Your task to perform on an android device: turn off airplane mode Image 0: 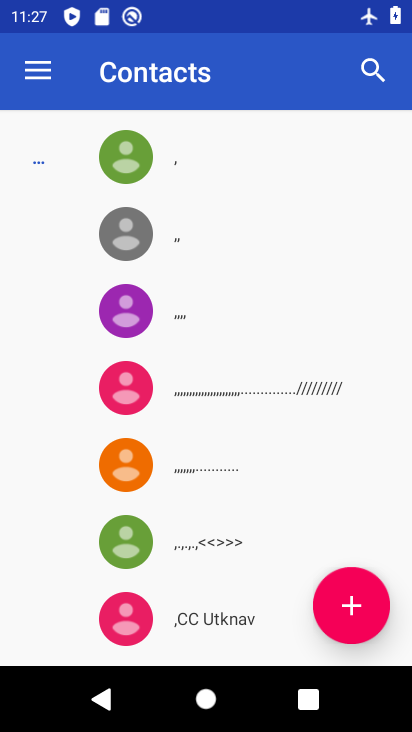
Step 0: press back button
Your task to perform on an android device: turn off airplane mode Image 1: 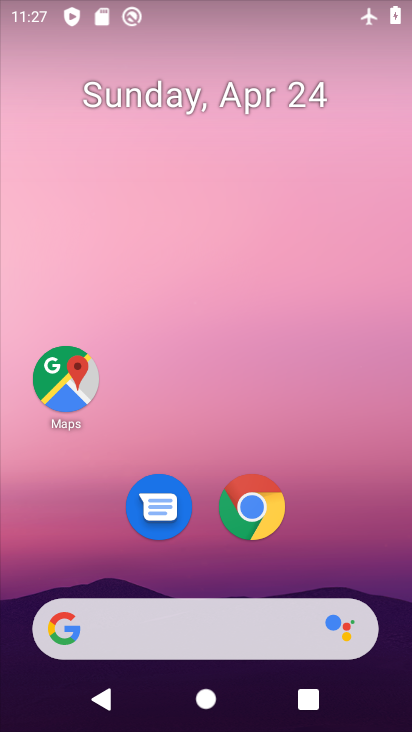
Step 1: drag from (311, 498) to (272, 1)
Your task to perform on an android device: turn off airplane mode Image 2: 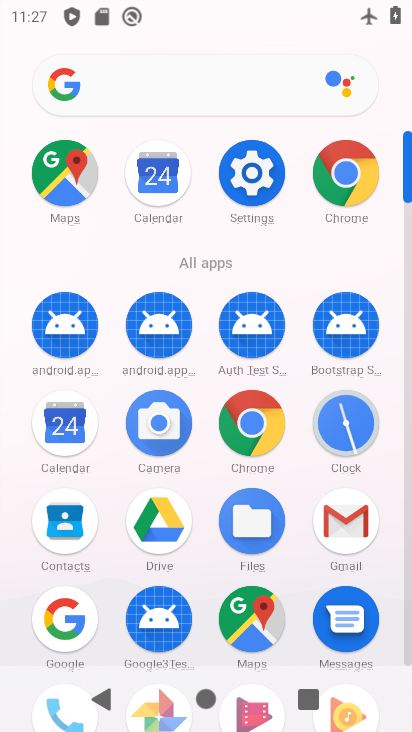
Step 2: click (256, 170)
Your task to perform on an android device: turn off airplane mode Image 3: 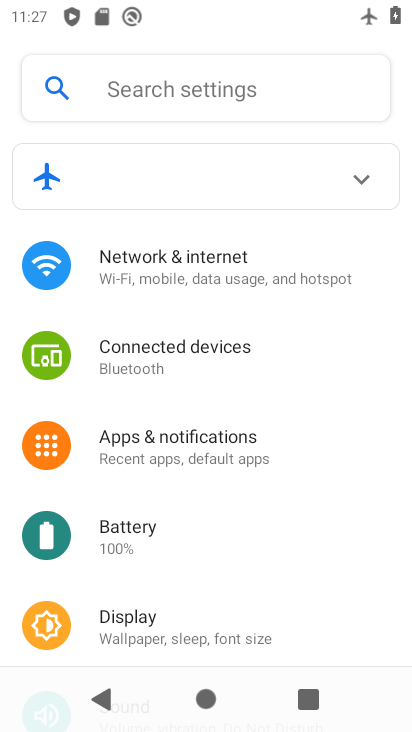
Step 3: click (256, 256)
Your task to perform on an android device: turn off airplane mode Image 4: 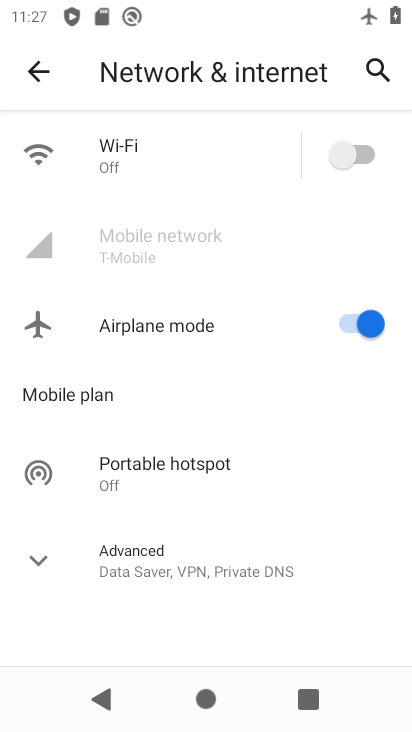
Step 4: click (334, 326)
Your task to perform on an android device: turn off airplane mode Image 5: 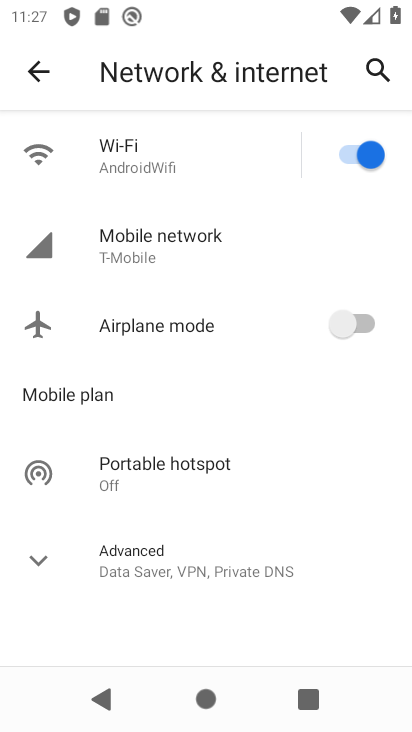
Step 5: click (21, 550)
Your task to perform on an android device: turn off airplane mode Image 6: 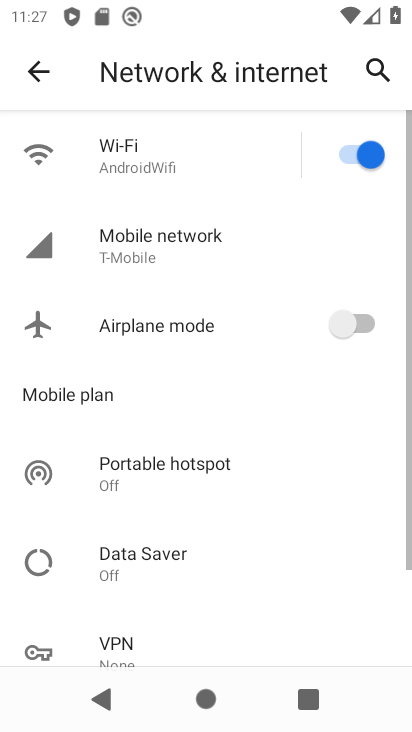
Step 6: task complete